Your task to perform on an android device: turn off translation in the chrome app Image 0: 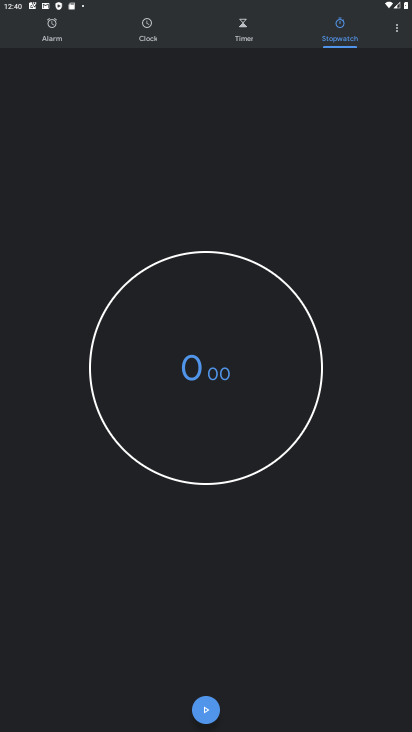
Step 0: press home button
Your task to perform on an android device: turn off translation in the chrome app Image 1: 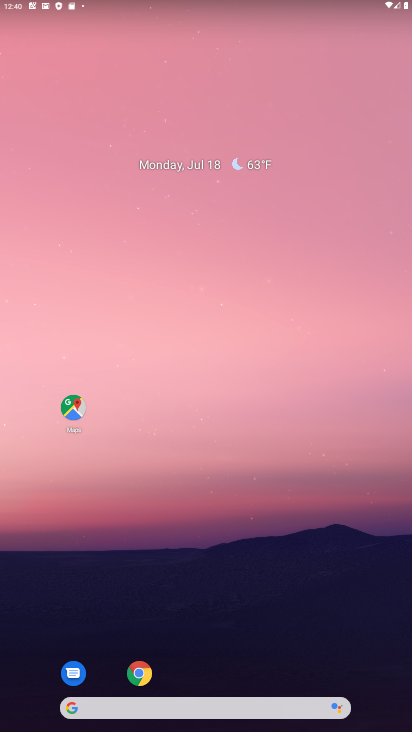
Step 1: drag from (282, 663) to (274, 153)
Your task to perform on an android device: turn off translation in the chrome app Image 2: 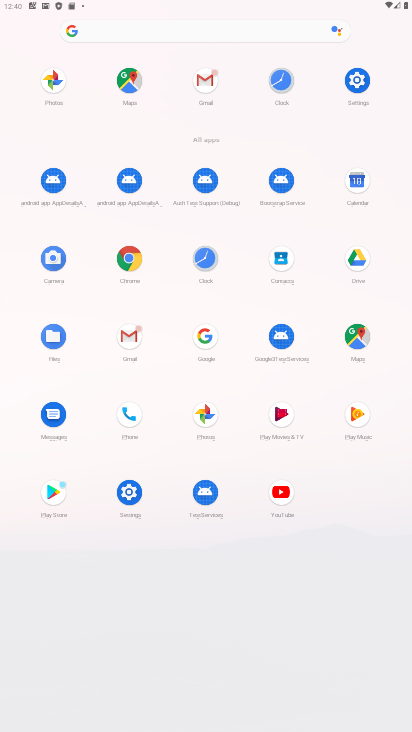
Step 2: click (126, 253)
Your task to perform on an android device: turn off translation in the chrome app Image 3: 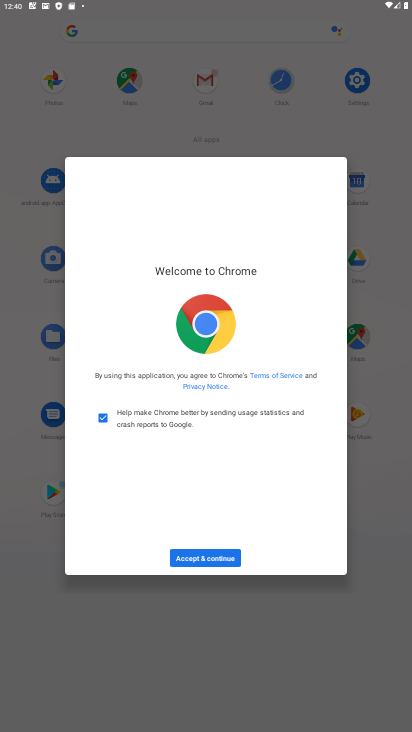
Step 3: click (204, 552)
Your task to perform on an android device: turn off translation in the chrome app Image 4: 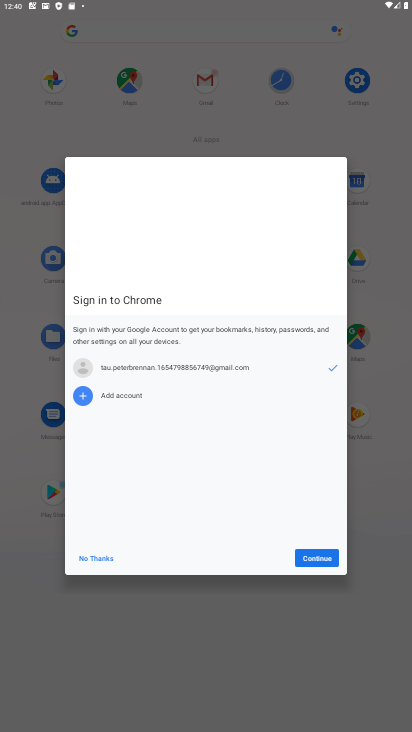
Step 4: click (317, 560)
Your task to perform on an android device: turn off translation in the chrome app Image 5: 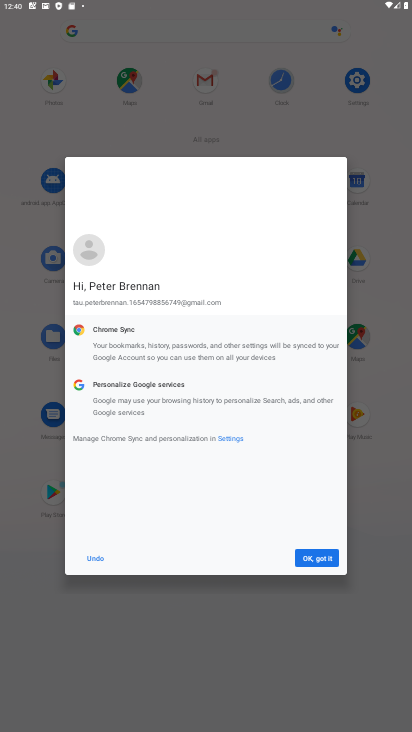
Step 5: click (317, 560)
Your task to perform on an android device: turn off translation in the chrome app Image 6: 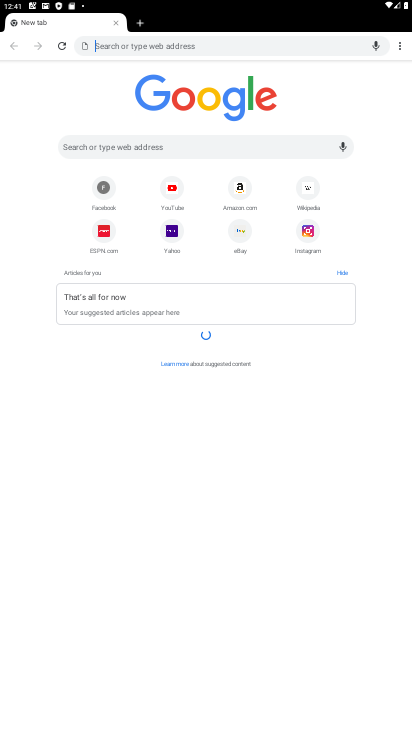
Step 6: click (401, 40)
Your task to perform on an android device: turn off translation in the chrome app Image 7: 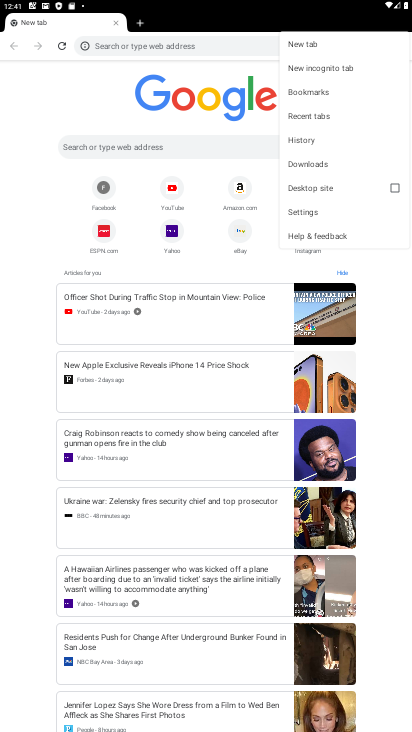
Step 7: click (324, 216)
Your task to perform on an android device: turn off translation in the chrome app Image 8: 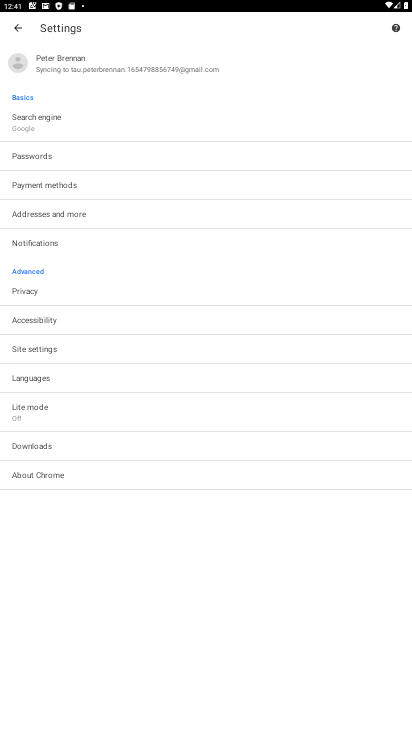
Step 8: click (104, 385)
Your task to perform on an android device: turn off translation in the chrome app Image 9: 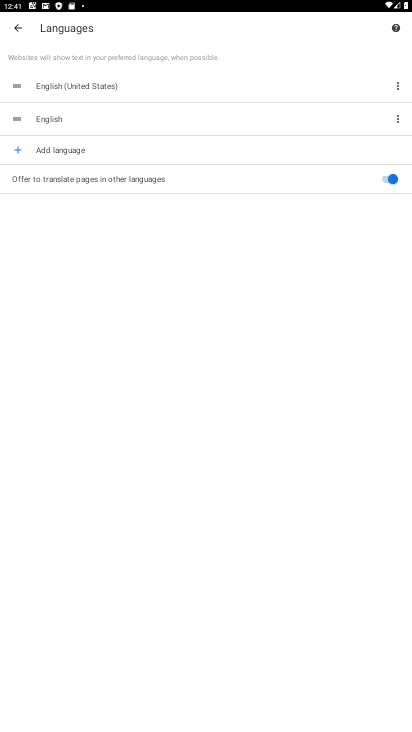
Step 9: click (384, 170)
Your task to perform on an android device: turn off translation in the chrome app Image 10: 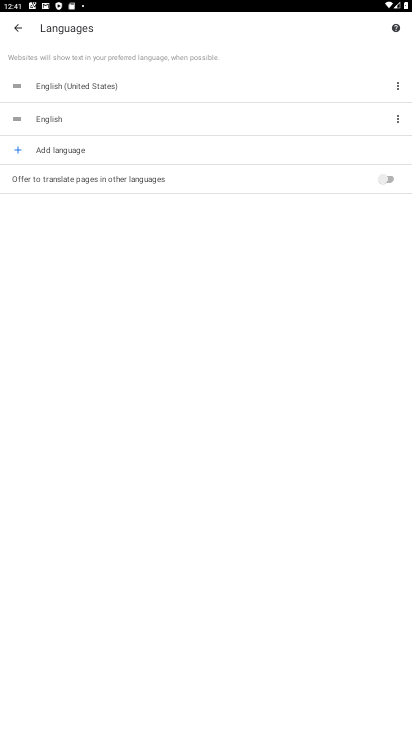
Step 10: task complete